Your task to perform on an android device: Search for the best lawnmowers on Lowes.com Image 0: 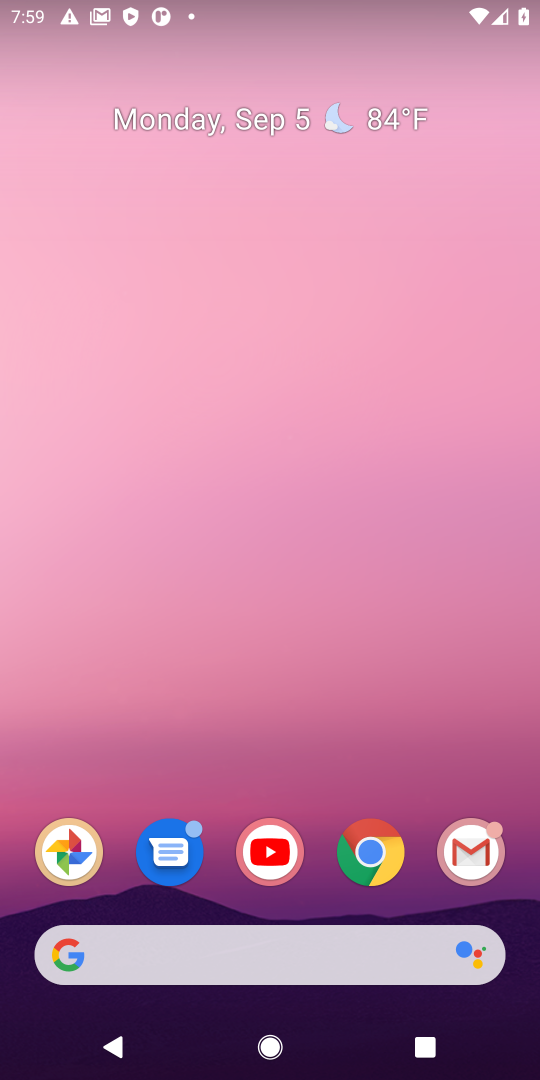
Step 0: click (371, 860)
Your task to perform on an android device: Search for the best lawnmowers on Lowes.com Image 1: 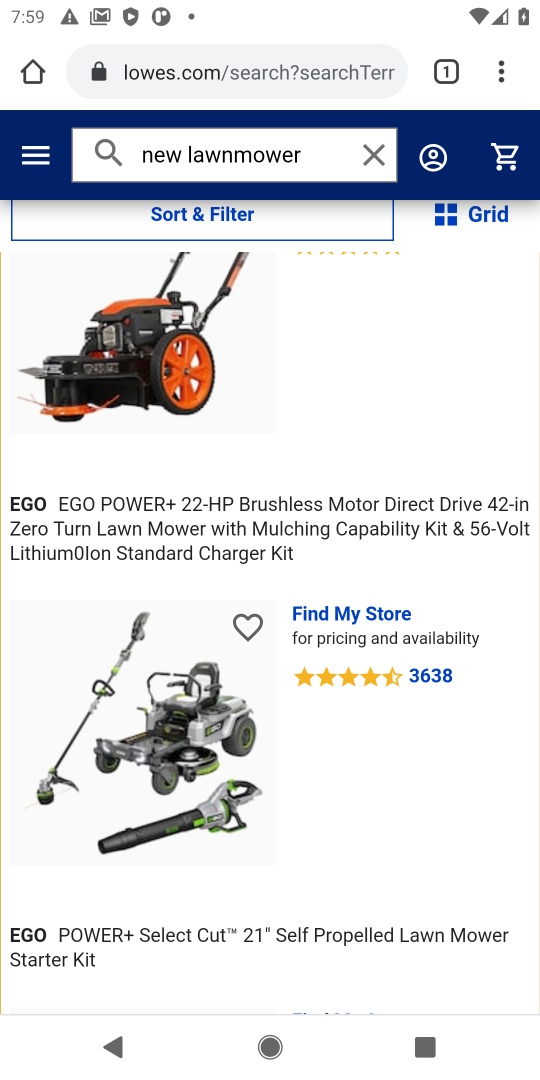
Step 1: click (332, 652)
Your task to perform on an android device: Search for the best lawnmowers on Lowes.com Image 2: 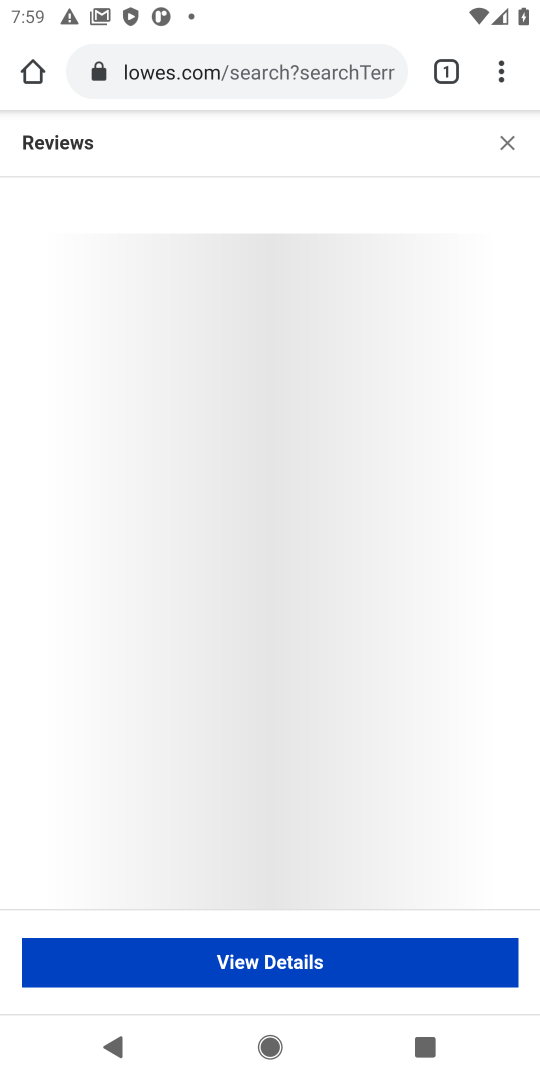
Step 2: press home button
Your task to perform on an android device: Search for the best lawnmowers on Lowes.com Image 3: 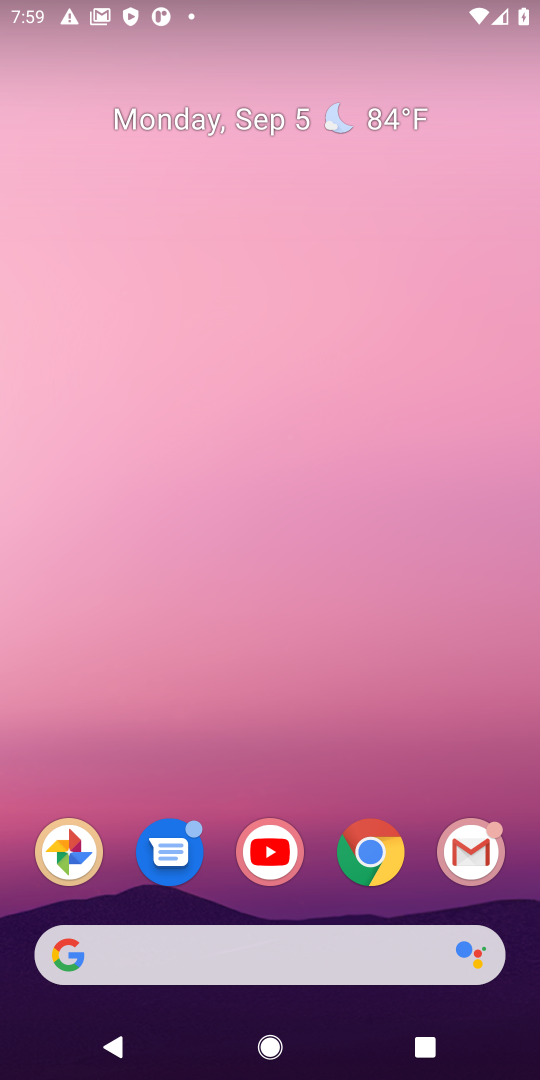
Step 3: click (384, 865)
Your task to perform on an android device: Search for the best lawnmowers on Lowes.com Image 4: 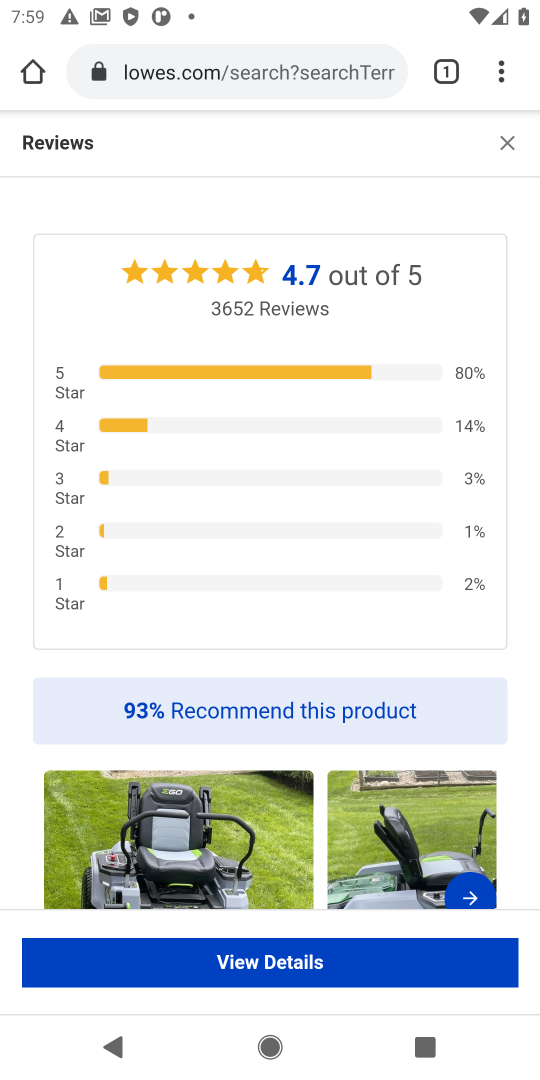
Step 4: click (256, 69)
Your task to perform on an android device: Search for the best lawnmowers on Lowes.com Image 5: 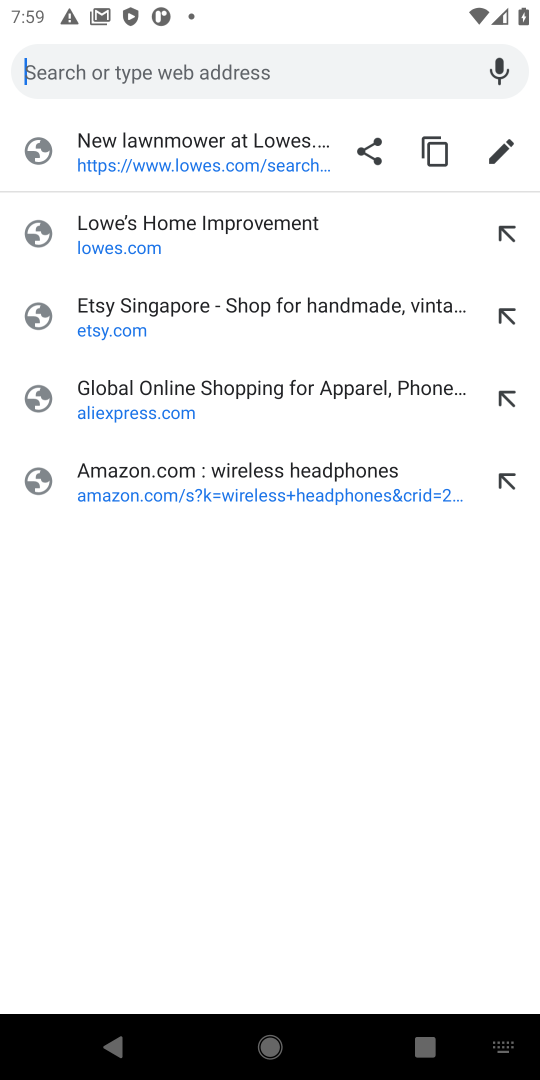
Step 5: type "lowes.com"
Your task to perform on an android device: Search for the best lawnmowers on Lowes.com Image 6: 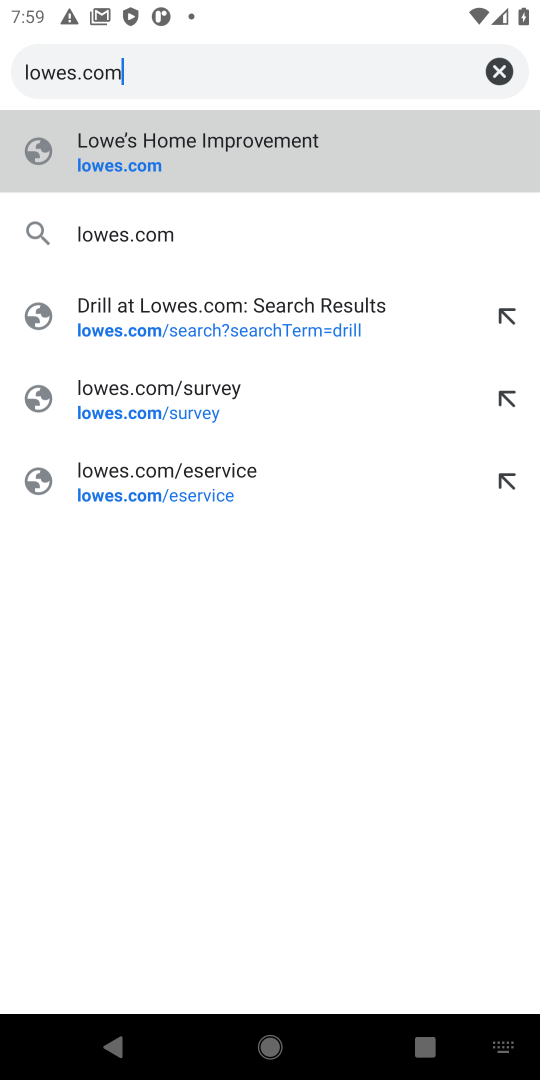
Step 6: press enter
Your task to perform on an android device: Search for the best lawnmowers on Lowes.com Image 7: 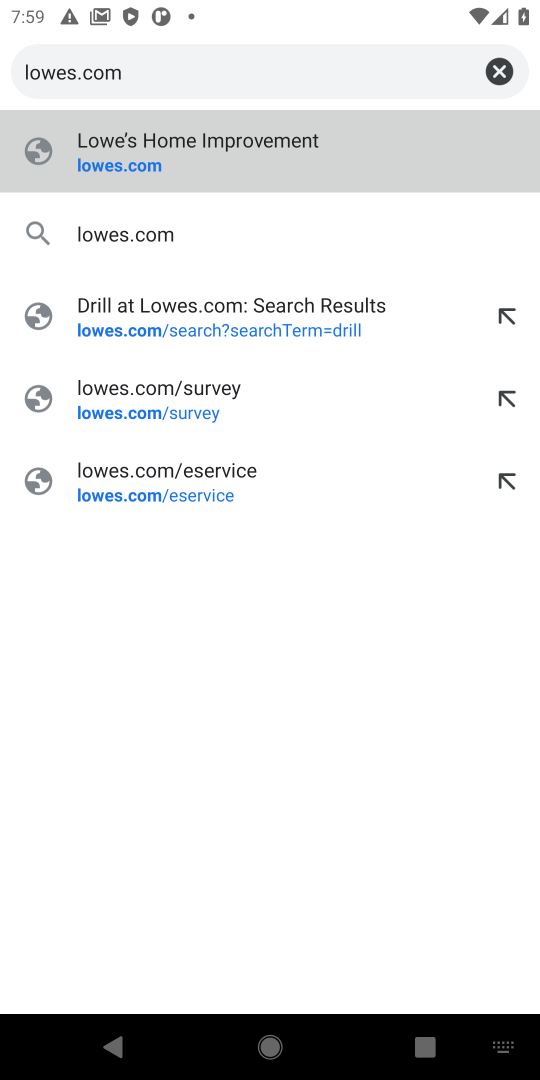
Step 7: type ""
Your task to perform on an android device: Search for the best lawnmowers on Lowes.com Image 8: 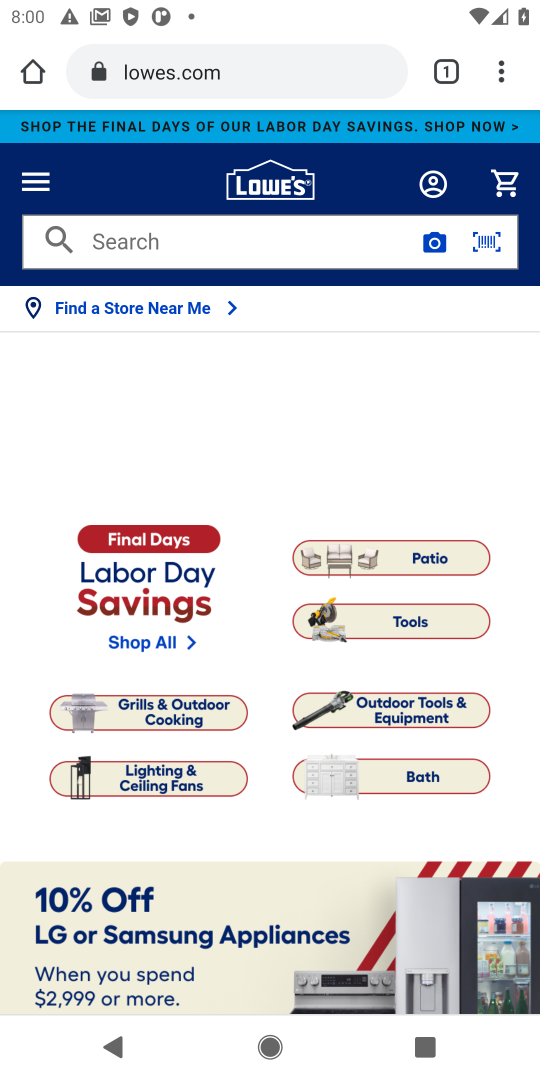
Step 8: drag from (296, 521) to (299, 442)
Your task to perform on an android device: Search for the best lawnmowers on Lowes.com Image 9: 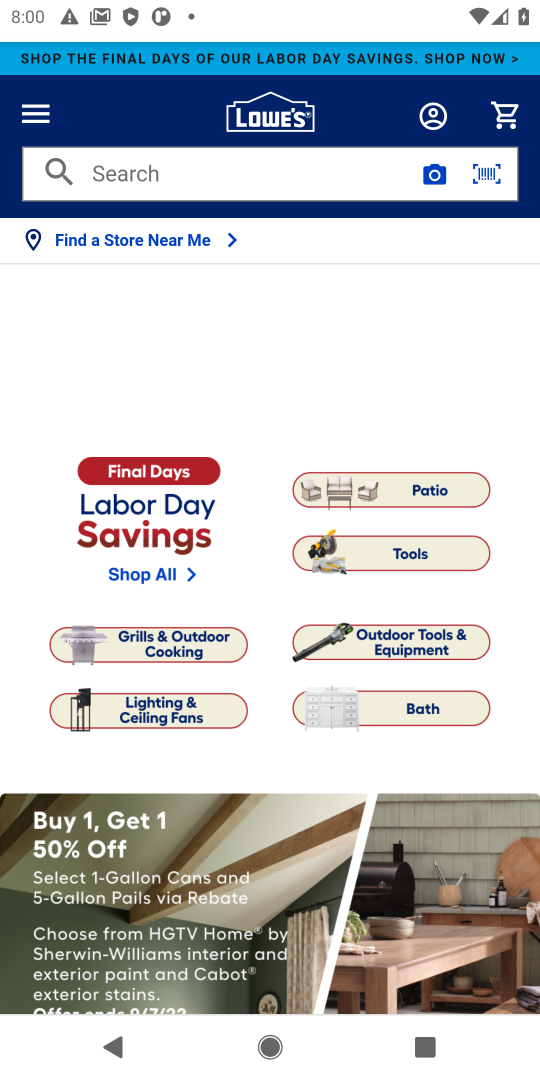
Step 9: click (267, 167)
Your task to perform on an android device: Search for the best lawnmowers on Lowes.com Image 10: 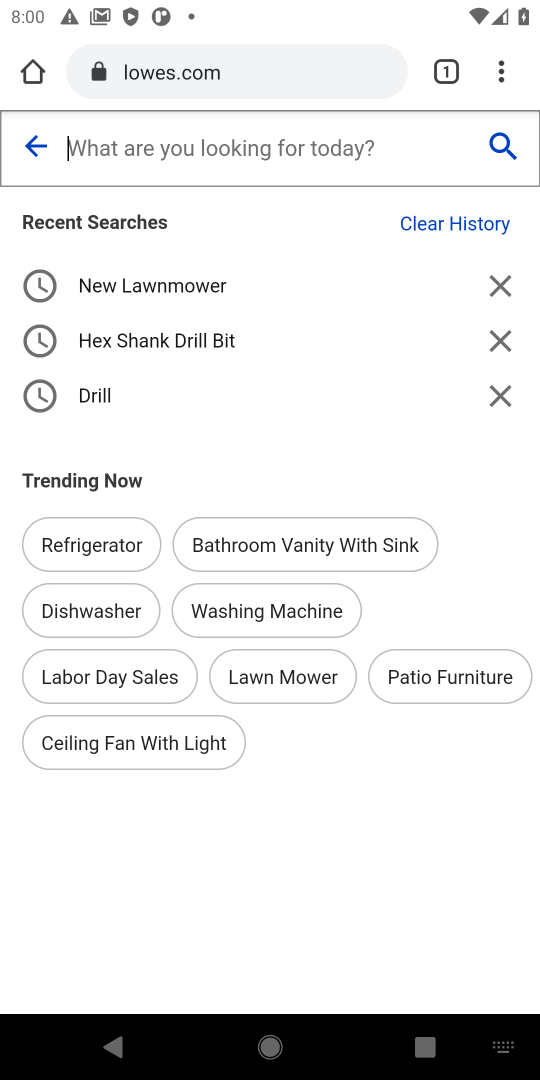
Step 10: type "lawnmowers"
Your task to perform on an android device: Search for the best lawnmowers on Lowes.com Image 11: 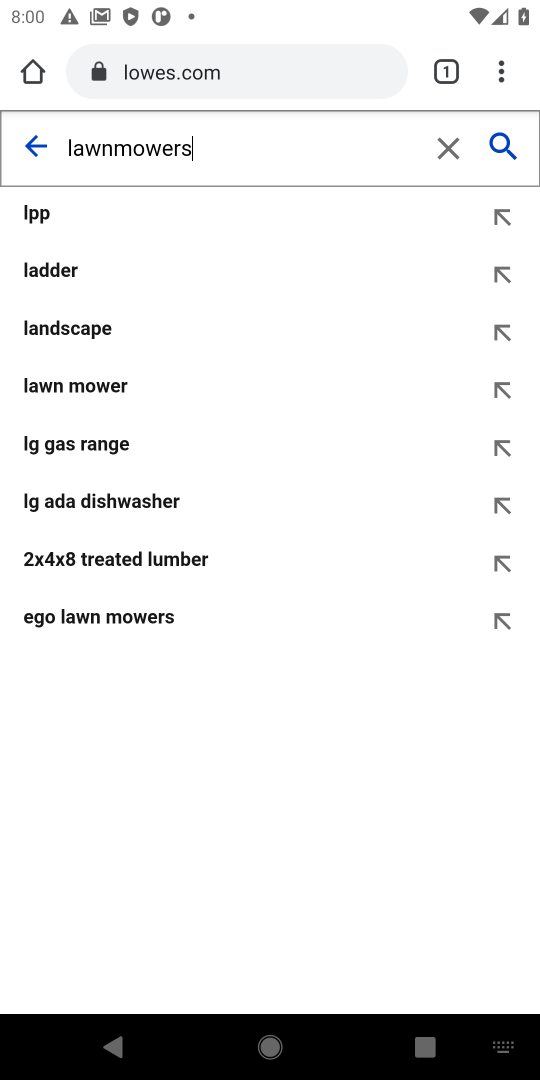
Step 11: type ""
Your task to perform on an android device: Search for the best lawnmowers on Lowes.com Image 12: 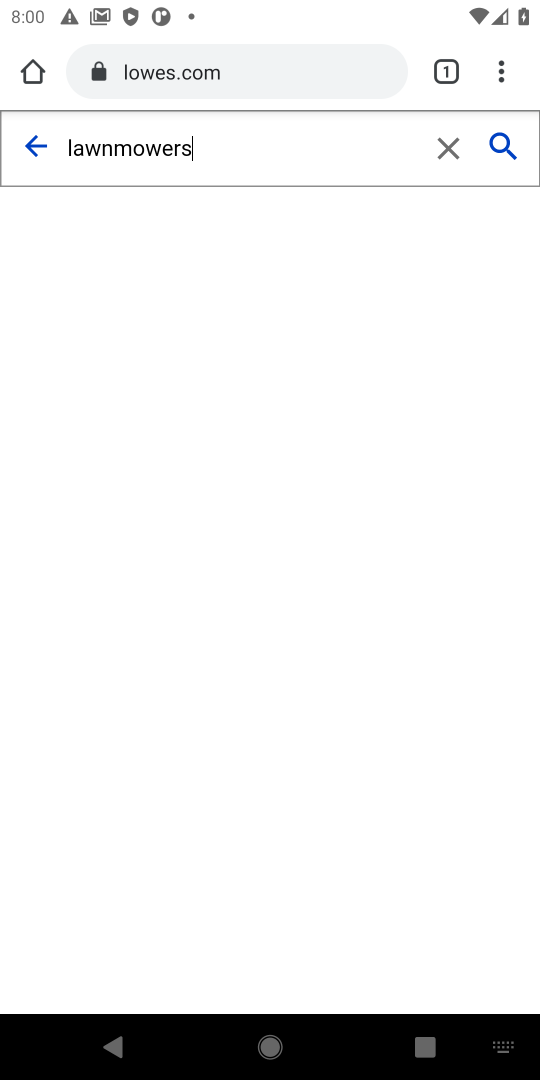
Step 12: press enter
Your task to perform on an android device: Search for the best lawnmowers on Lowes.com Image 13: 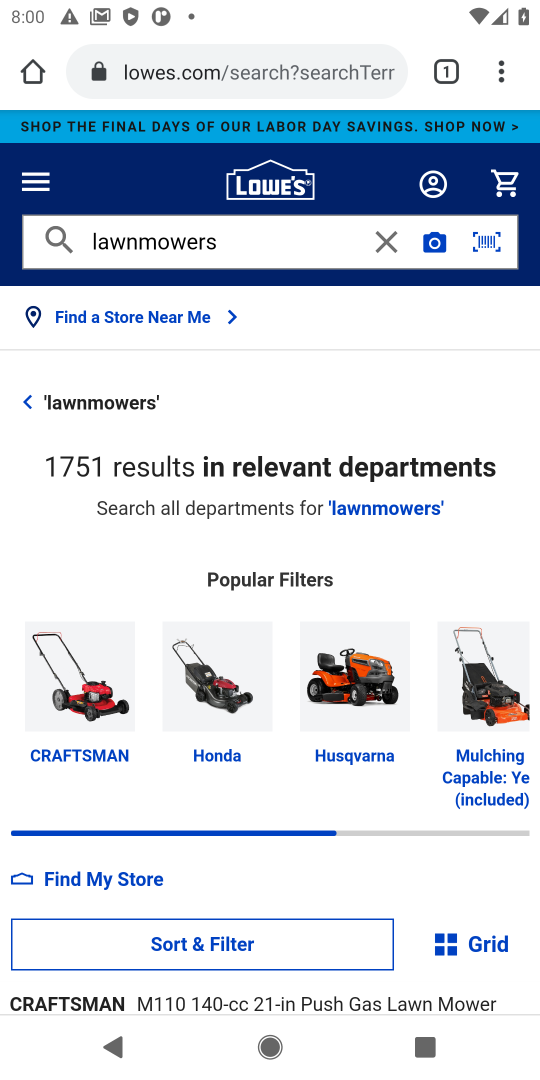
Step 13: drag from (265, 792) to (298, 365)
Your task to perform on an android device: Search for the best lawnmowers on Lowes.com Image 14: 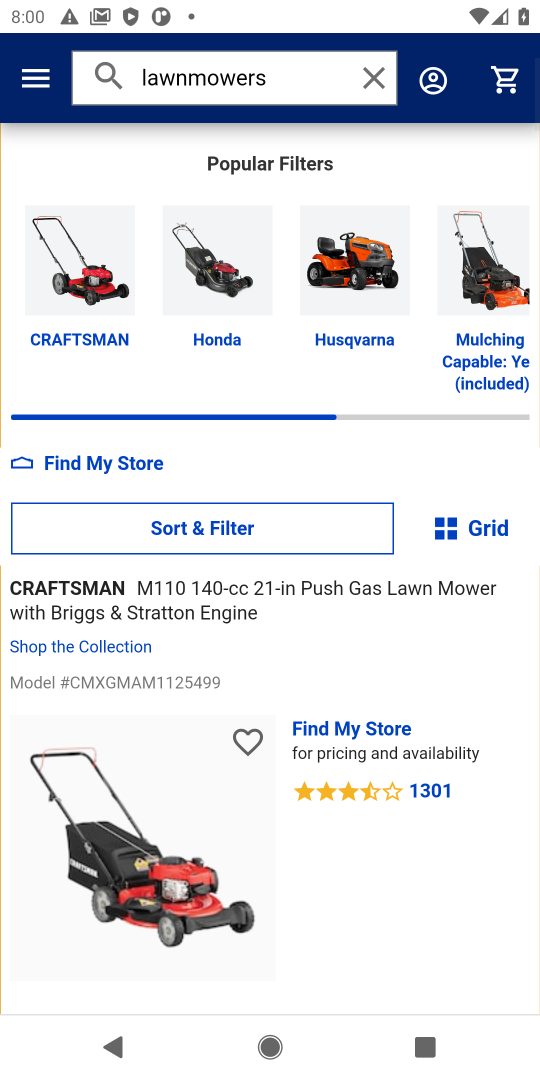
Step 14: click (251, 526)
Your task to perform on an android device: Search for the best lawnmowers on Lowes.com Image 15: 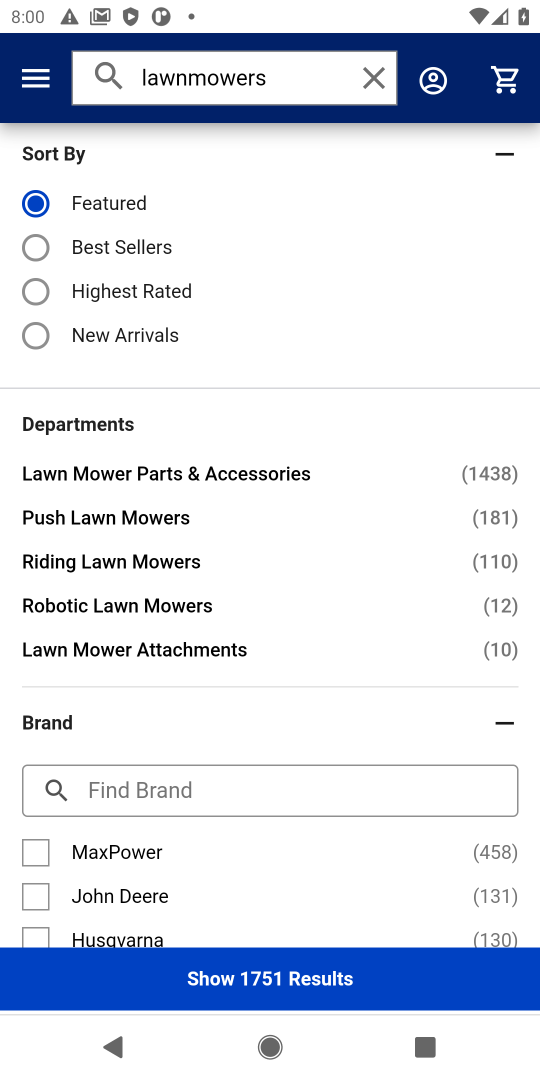
Step 15: click (100, 246)
Your task to perform on an android device: Search for the best lawnmowers on Lowes.com Image 16: 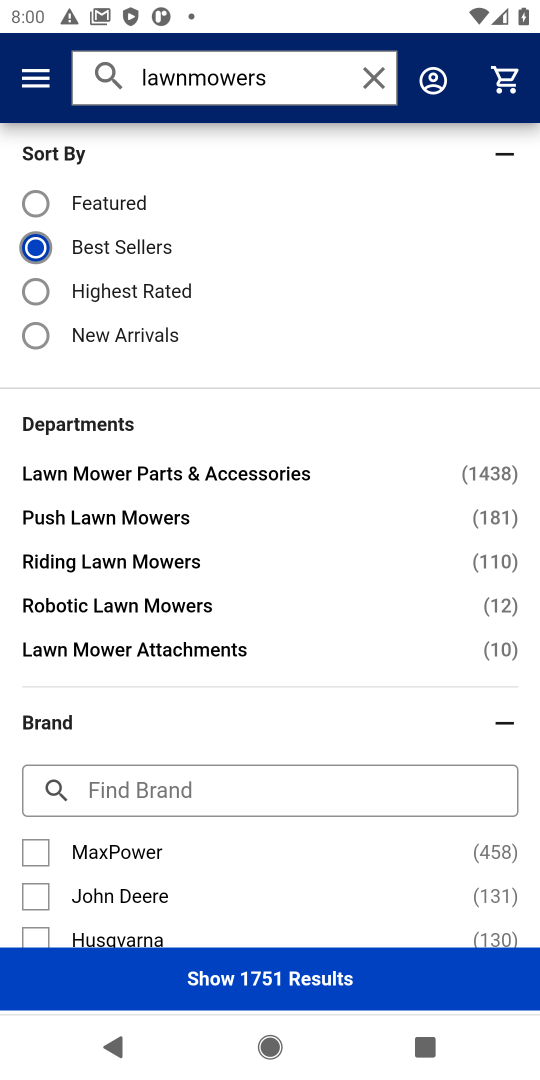
Step 16: click (282, 976)
Your task to perform on an android device: Search for the best lawnmowers on Lowes.com Image 17: 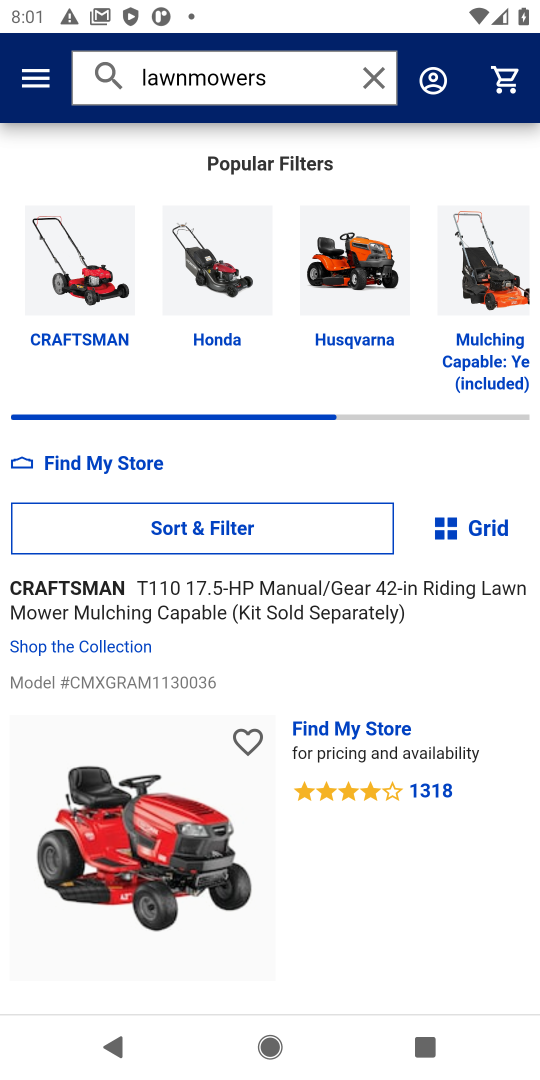
Step 17: task complete